Your task to perform on an android device: turn on the 24-hour format for clock Image 0: 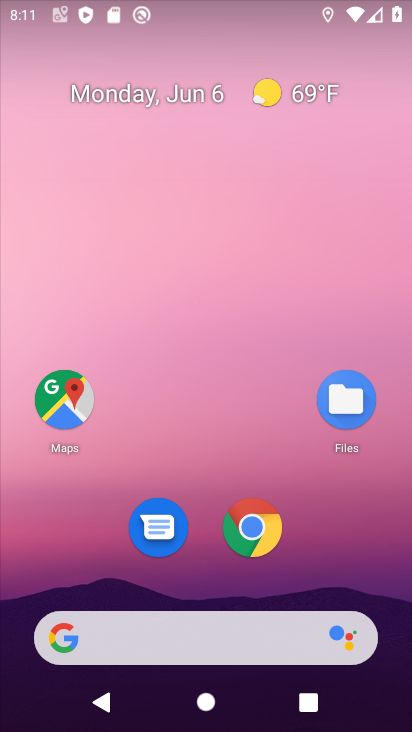
Step 0: drag from (316, 567) to (296, 168)
Your task to perform on an android device: turn on the 24-hour format for clock Image 1: 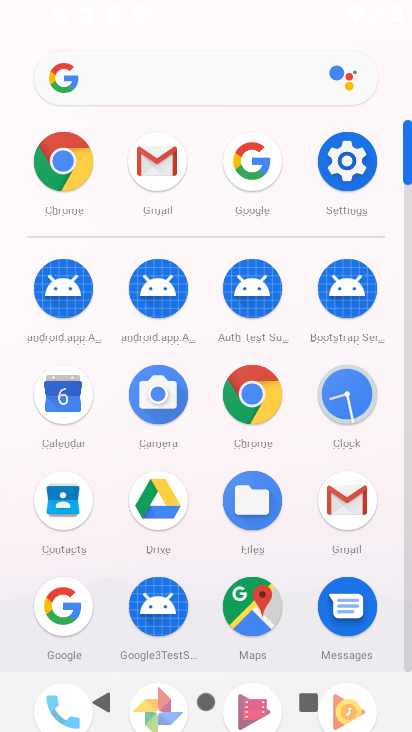
Step 1: click (343, 393)
Your task to perform on an android device: turn on the 24-hour format for clock Image 2: 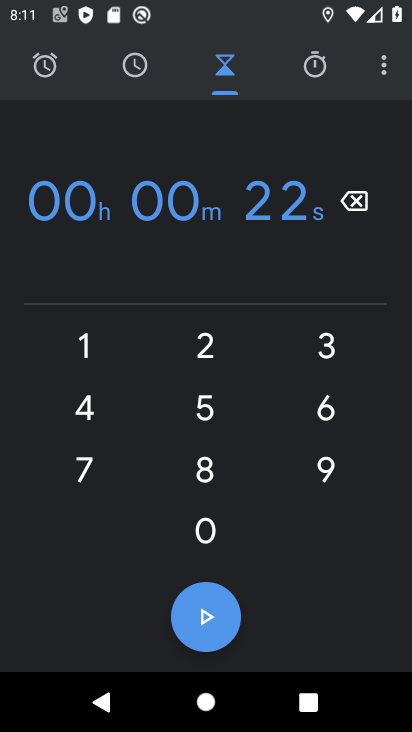
Step 2: click (379, 74)
Your task to perform on an android device: turn on the 24-hour format for clock Image 3: 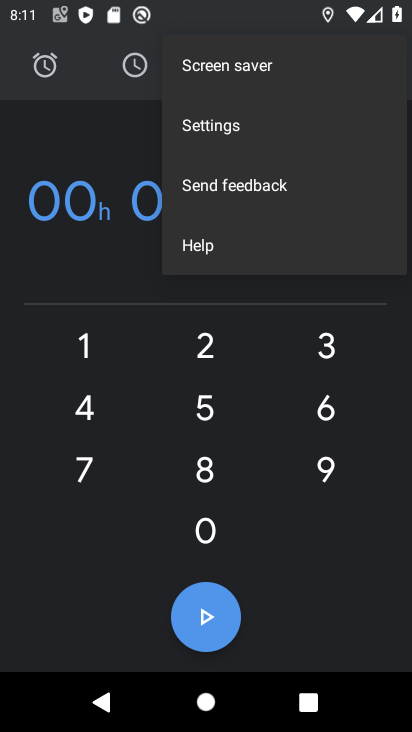
Step 3: click (213, 123)
Your task to perform on an android device: turn on the 24-hour format for clock Image 4: 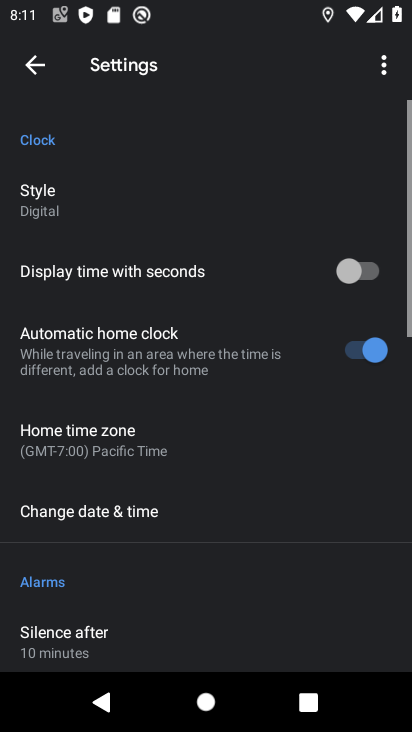
Step 4: click (111, 533)
Your task to perform on an android device: turn on the 24-hour format for clock Image 5: 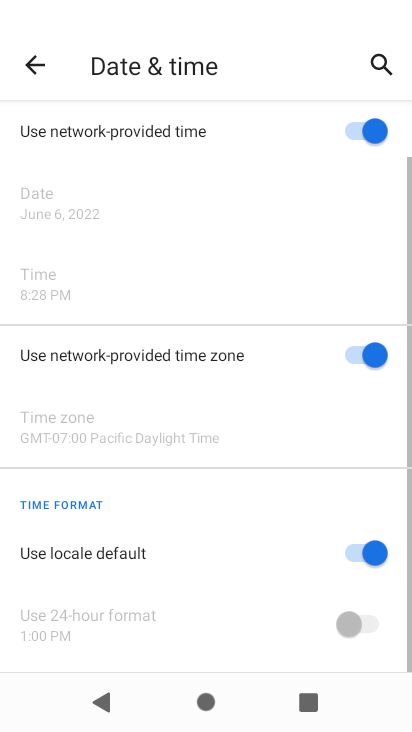
Step 5: drag from (193, 515) to (185, 203)
Your task to perform on an android device: turn on the 24-hour format for clock Image 6: 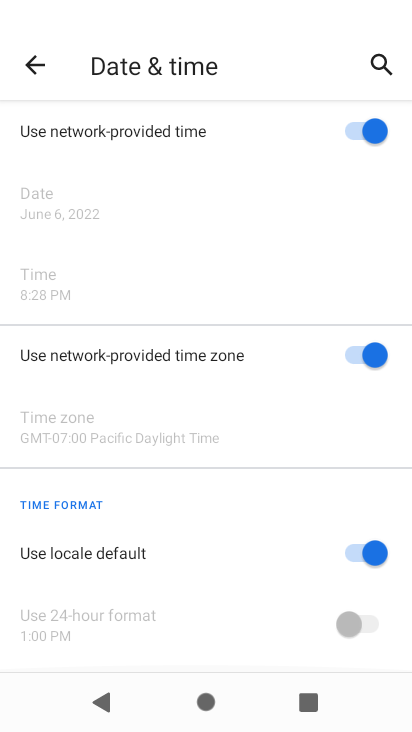
Step 6: click (374, 560)
Your task to perform on an android device: turn on the 24-hour format for clock Image 7: 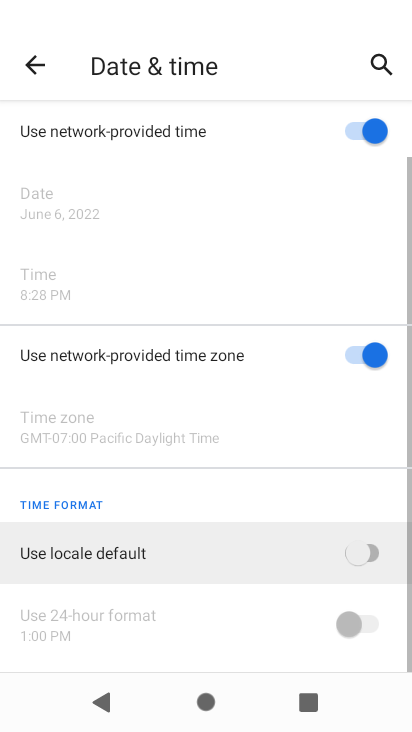
Step 7: click (359, 631)
Your task to perform on an android device: turn on the 24-hour format for clock Image 8: 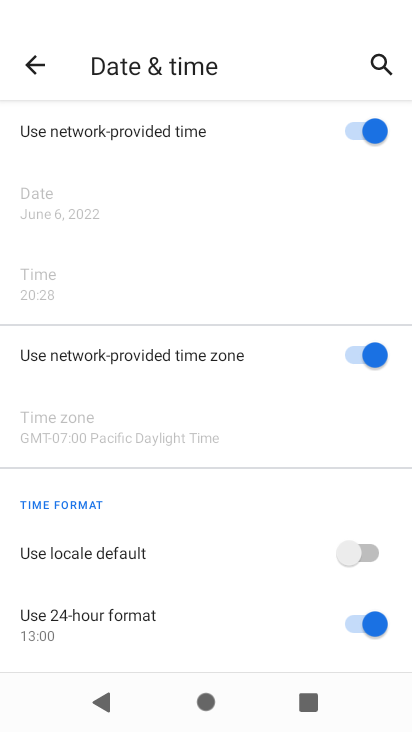
Step 8: task complete